Your task to perform on an android device: open app "DoorDash - Food Delivery" Image 0: 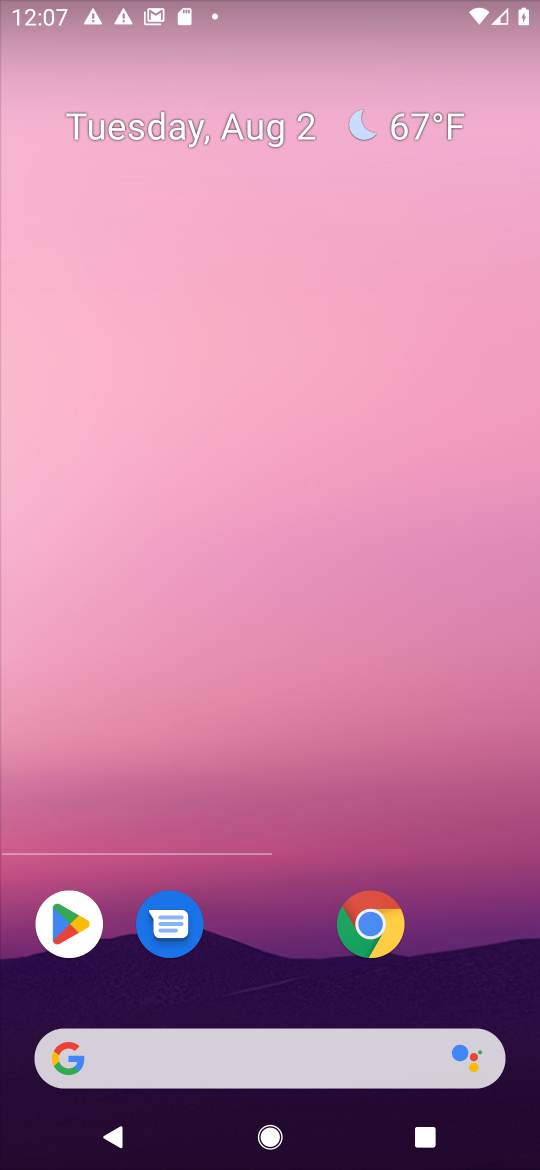
Step 0: press home button
Your task to perform on an android device: open app "DoorDash - Food Delivery" Image 1: 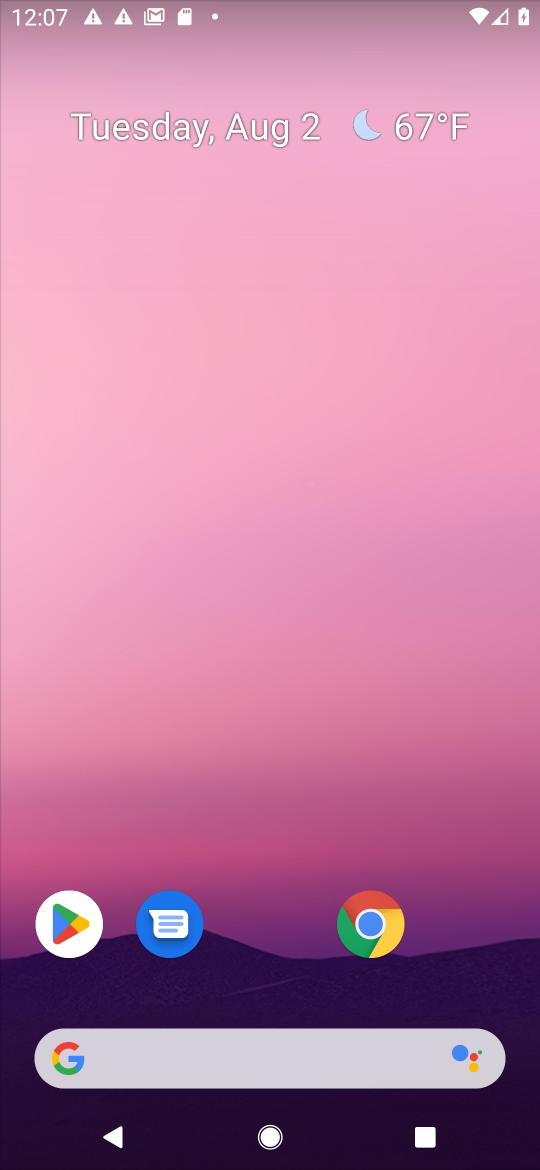
Step 1: click (66, 915)
Your task to perform on an android device: open app "DoorDash - Food Delivery" Image 2: 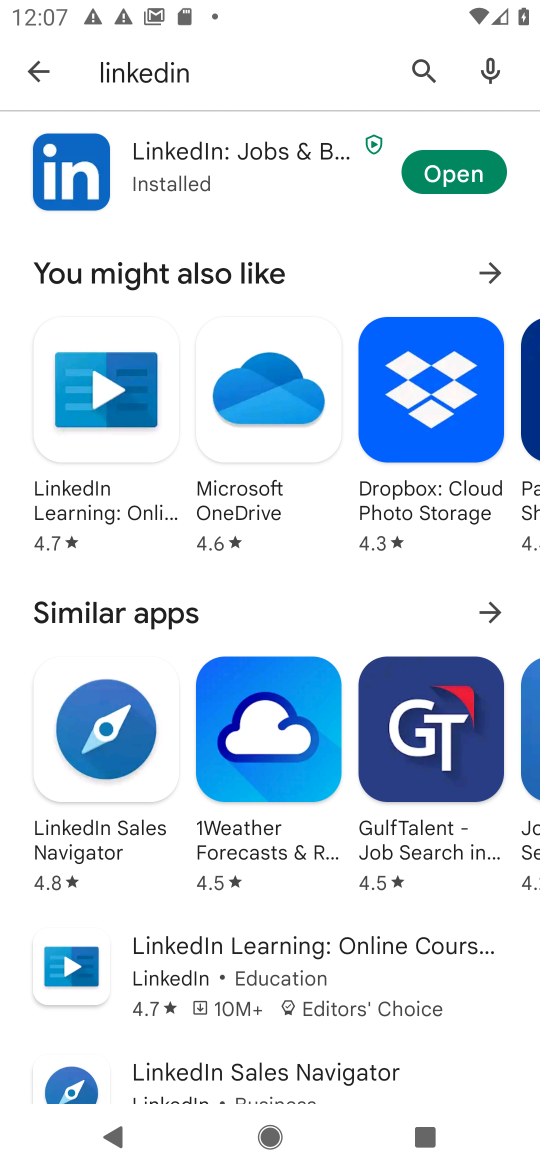
Step 2: click (425, 68)
Your task to perform on an android device: open app "DoorDash - Food Delivery" Image 3: 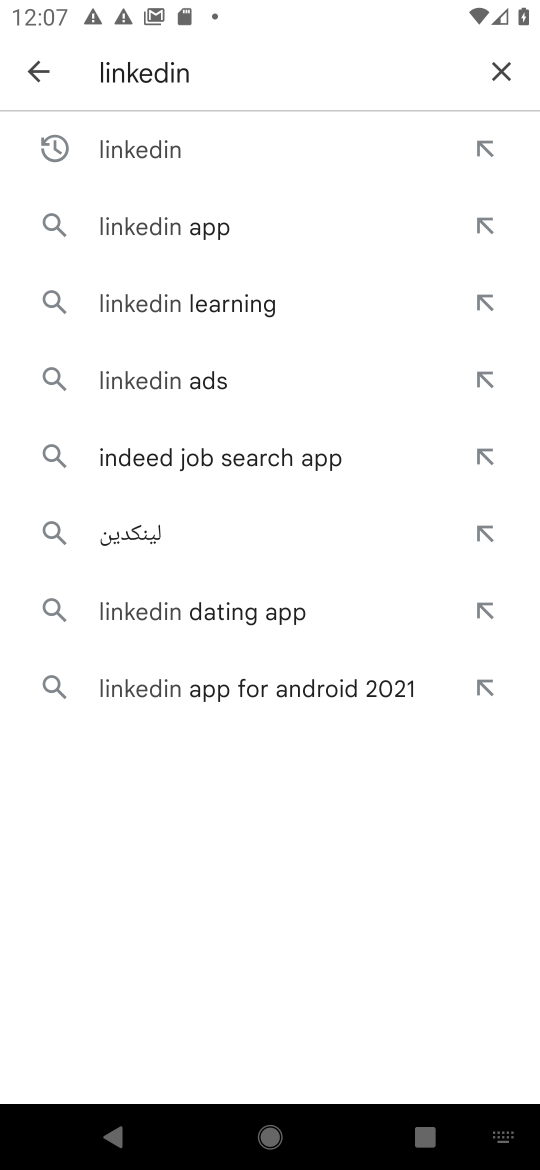
Step 3: click (509, 79)
Your task to perform on an android device: open app "DoorDash - Food Delivery" Image 4: 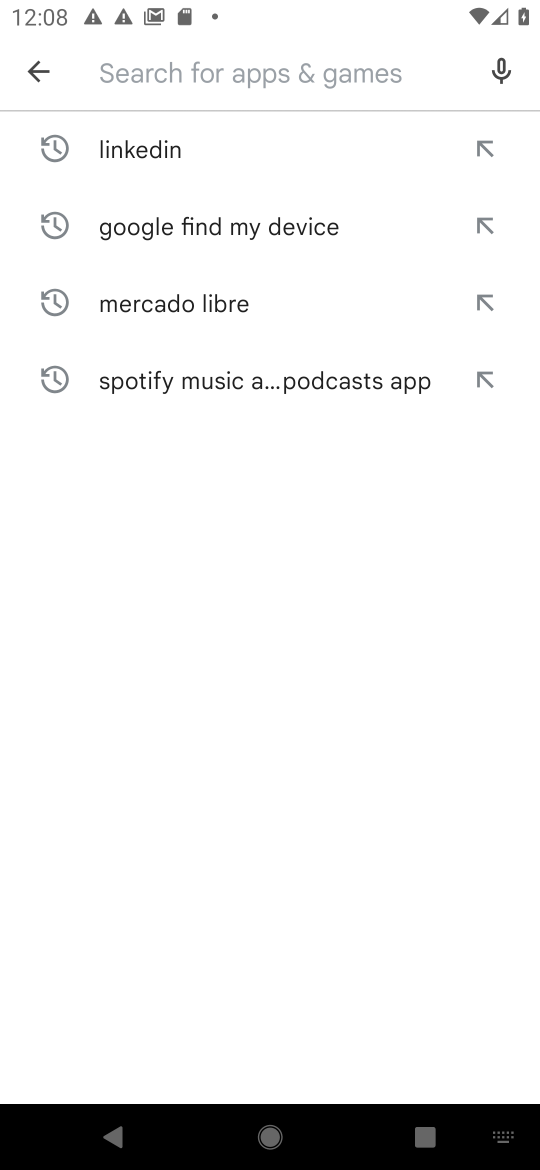
Step 4: type "DoorDash - Food Delivery"
Your task to perform on an android device: open app "DoorDash - Food Delivery" Image 5: 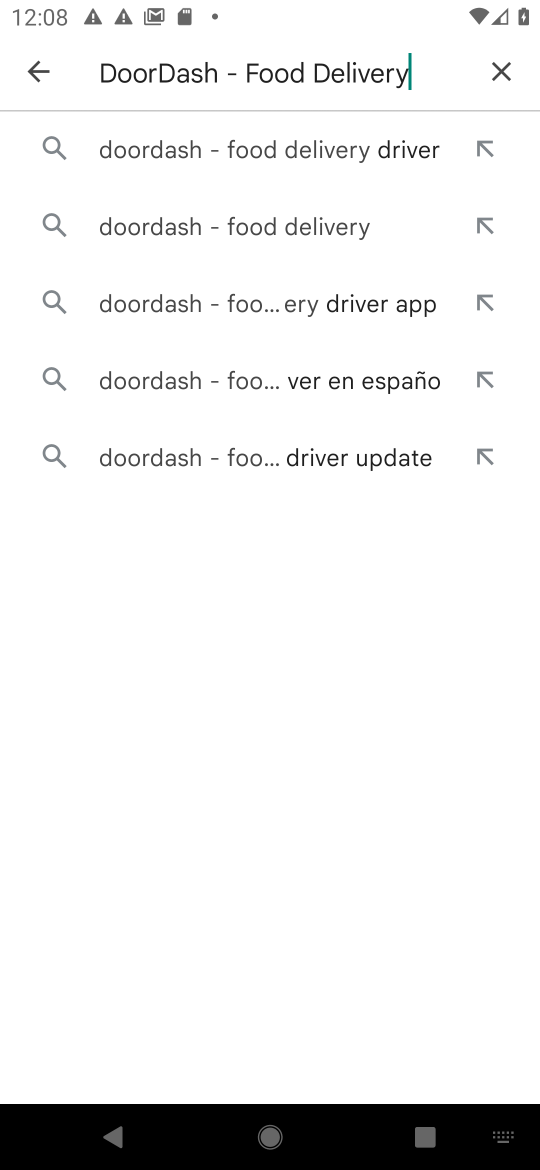
Step 5: click (282, 232)
Your task to perform on an android device: open app "DoorDash - Food Delivery" Image 6: 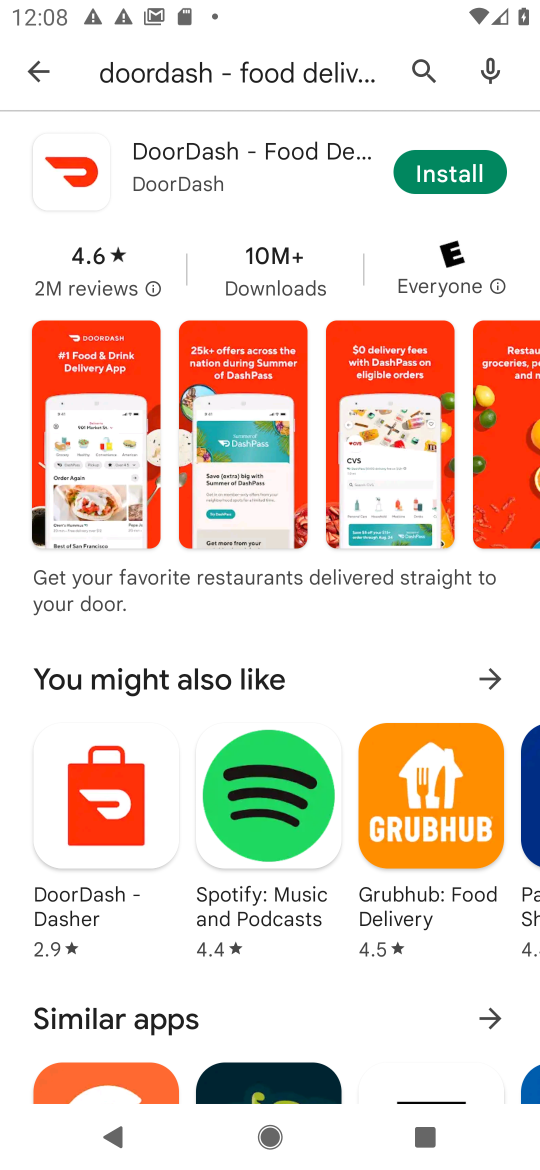
Step 6: click (441, 162)
Your task to perform on an android device: open app "DoorDash - Food Delivery" Image 7: 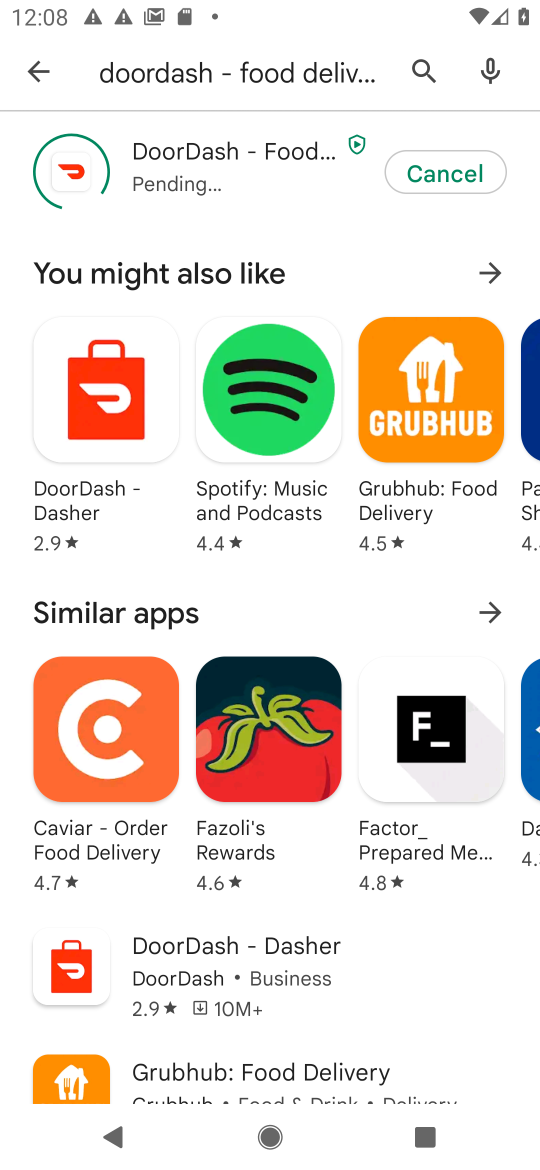
Step 7: click (440, 169)
Your task to perform on an android device: open app "DoorDash - Food Delivery" Image 8: 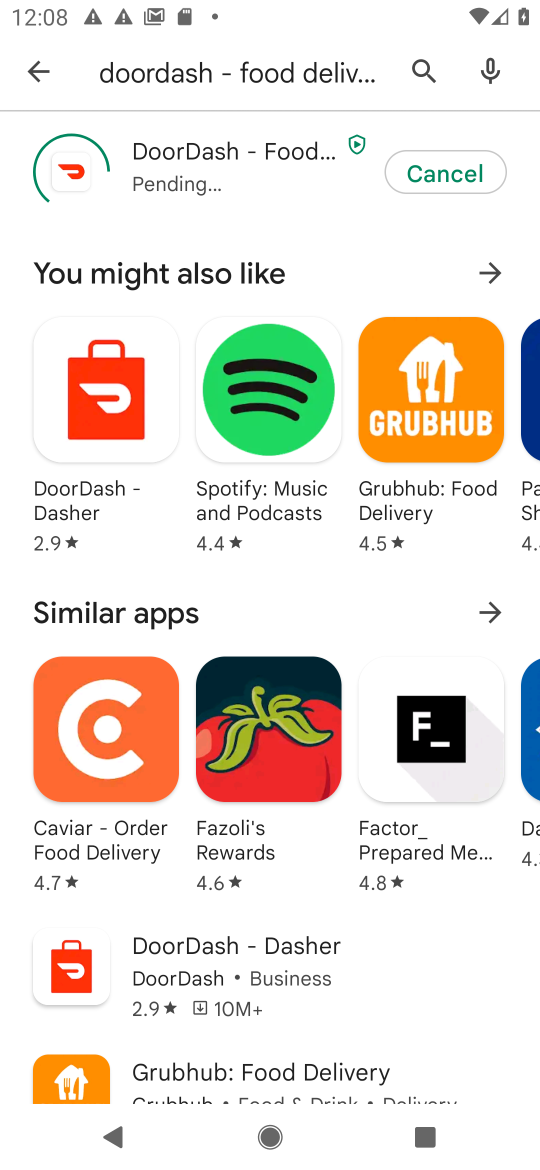
Step 8: task complete